Your task to perform on an android device: Open ESPN.com Image 0: 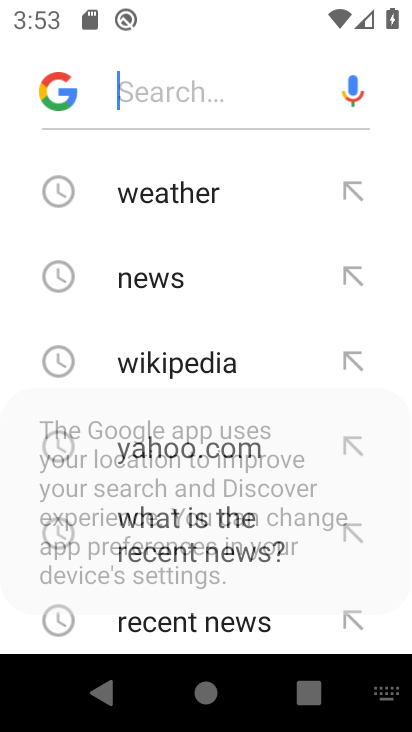
Step 0: press home button
Your task to perform on an android device: Open ESPN.com Image 1: 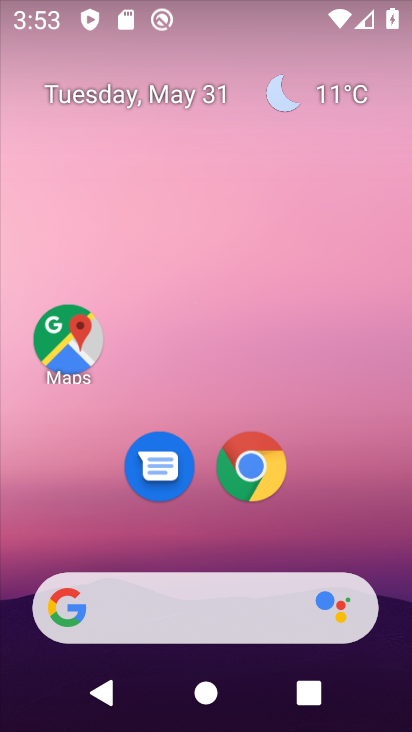
Step 1: drag from (201, 541) to (216, 24)
Your task to perform on an android device: Open ESPN.com Image 2: 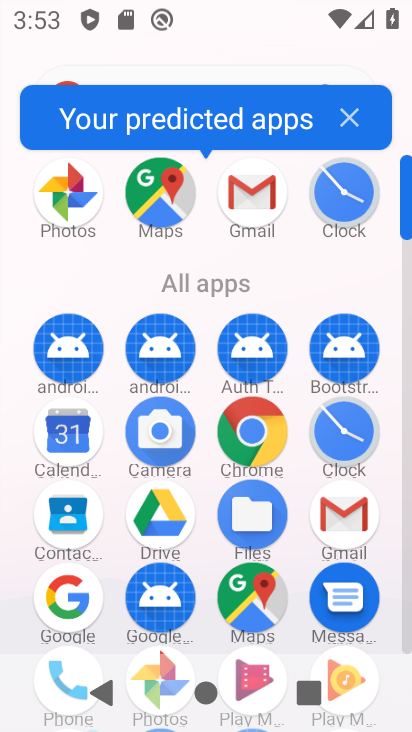
Step 2: click (249, 423)
Your task to perform on an android device: Open ESPN.com Image 3: 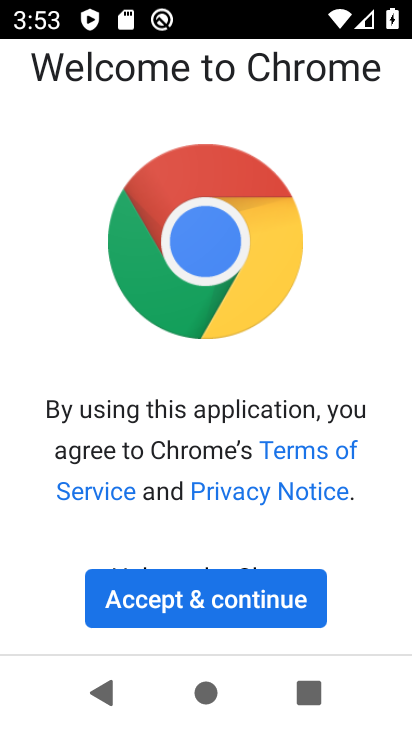
Step 3: click (192, 600)
Your task to perform on an android device: Open ESPN.com Image 4: 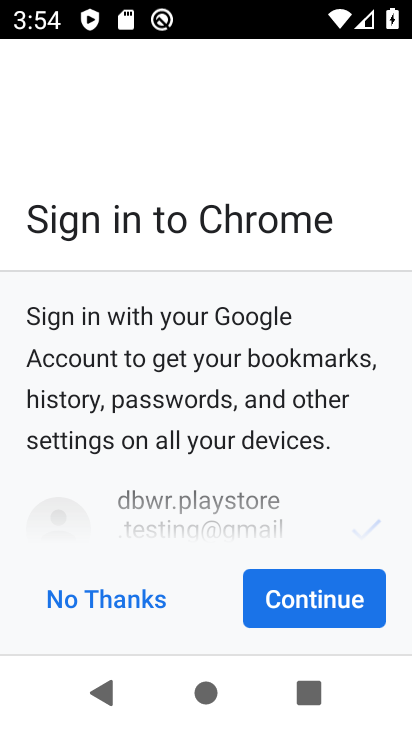
Step 4: click (315, 598)
Your task to perform on an android device: Open ESPN.com Image 5: 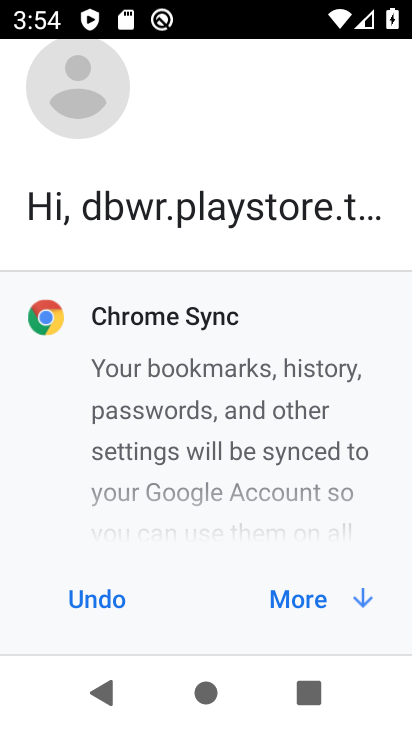
Step 5: click (315, 598)
Your task to perform on an android device: Open ESPN.com Image 6: 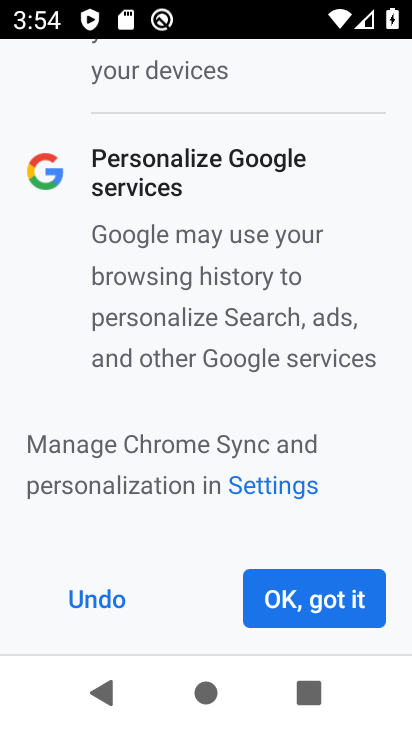
Step 6: click (315, 598)
Your task to perform on an android device: Open ESPN.com Image 7: 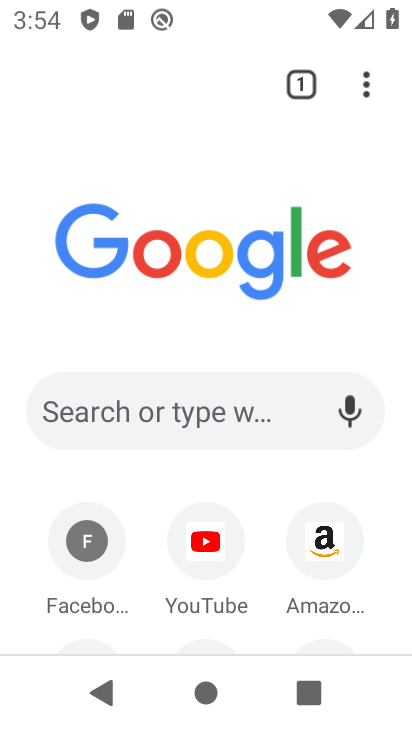
Step 7: drag from (148, 571) to (137, 108)
Your task to perform on an android device: Open ESPN.com Image 8: 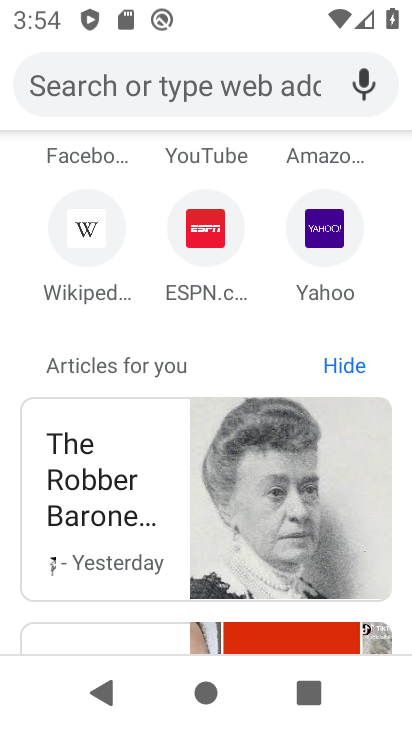
Step 8: drag from (134, 187) to (126, 473)
Your task to perform on an android device: Open ESPN.com Image 9: 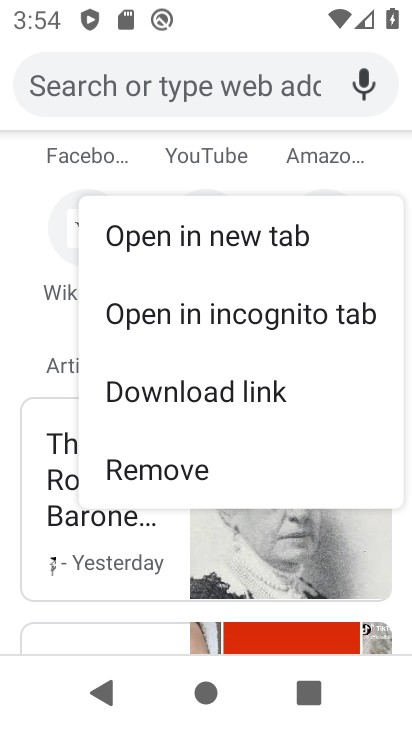
Step 9: click (20, 350)
Your task to perform on an android device: Open ESPN.com Image 10: 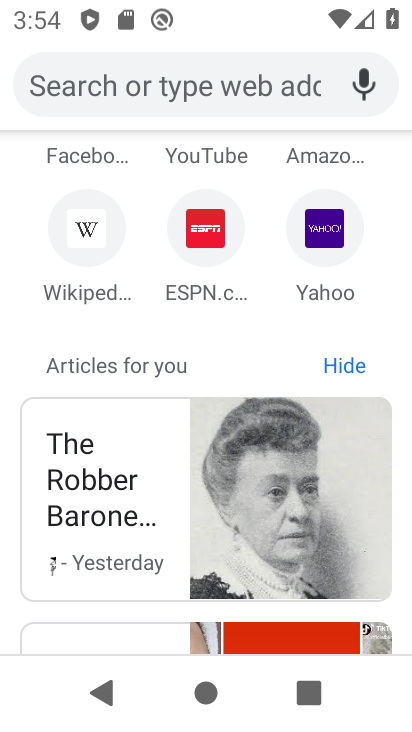
Step 10: click (131, 93)
Your task to perform on an android device: Open ESPN.com Image 11: 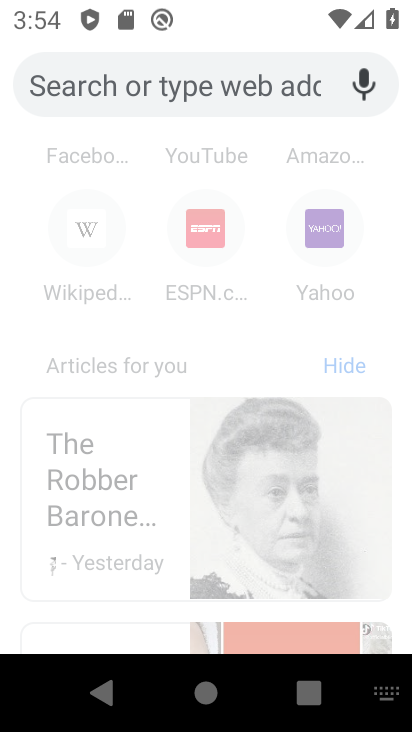
Step 11: type "espn"
Your task to perform on an android device: Open ESPN.com Image 12: 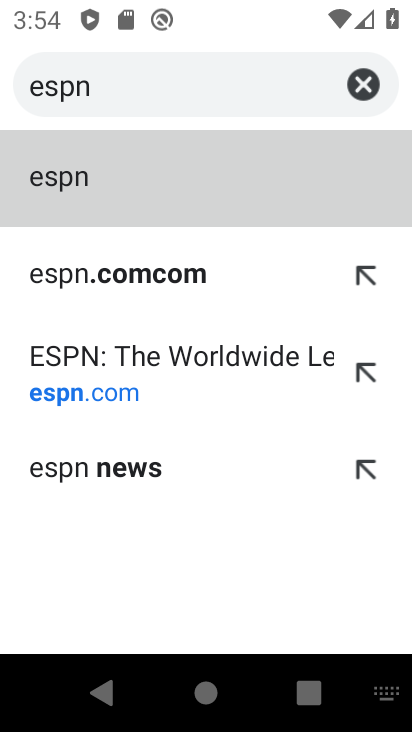
Step 12: click (161, 375)
Your task to perform on an android device: Open ESPN.com Image 13: 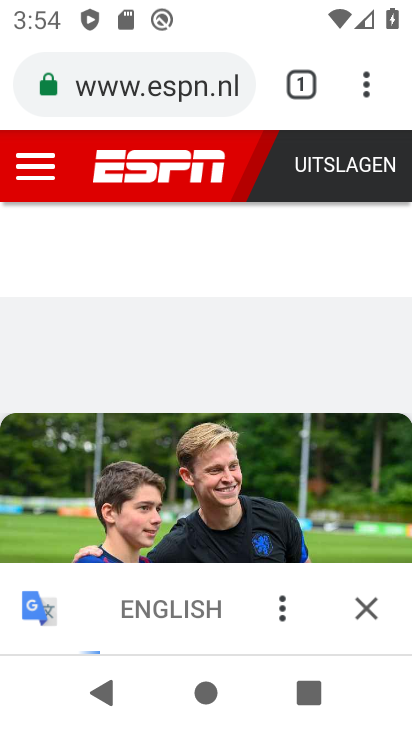
Step 13: click (364, 614)
Your task to perform on an android device: Open ESPN.com Image 14: 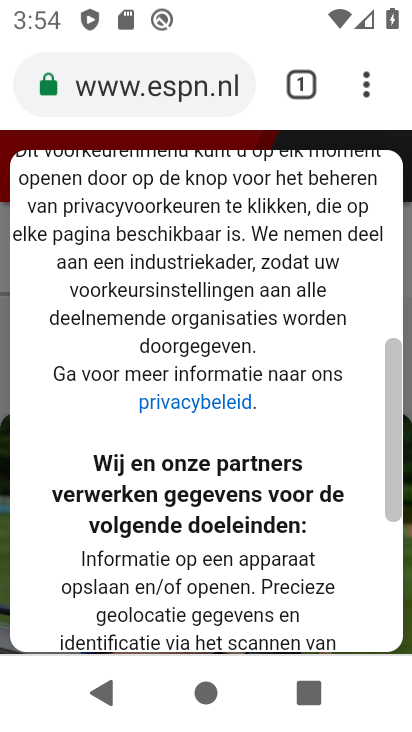
Step 14: drag from (229, 606) to (219, 140)
Your task to perform on an android device: Open ESPN.com Image 15: 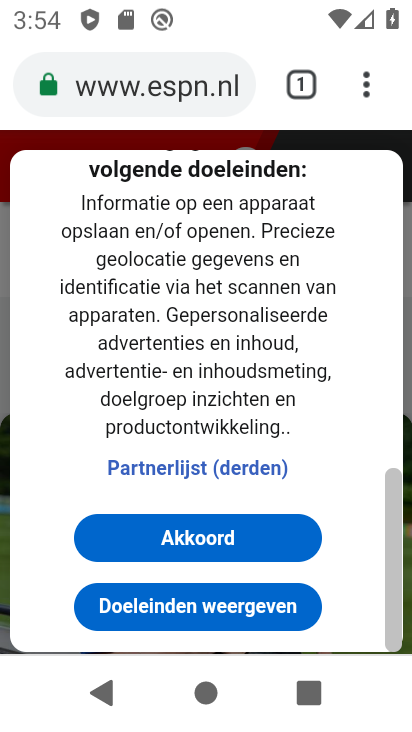
Step 15: click (203, 534)
Your task to perform on an android device: Open ESPN.com Image 16: 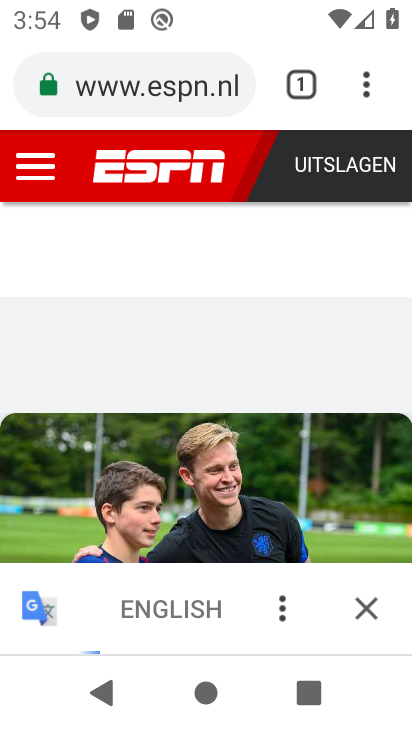
Step 16: click (356, 614)
Your task to perform on an android device: Open ESPN.com Image 17: 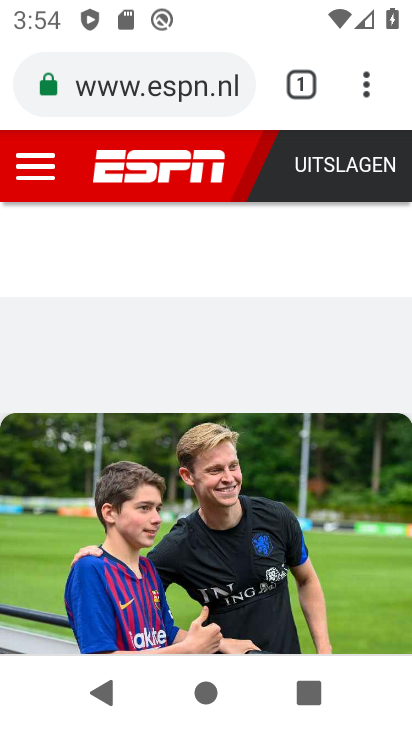
Step 17: task complete